Your task to perform on an android device: turn vacation reply on in the gmail app Image 0: 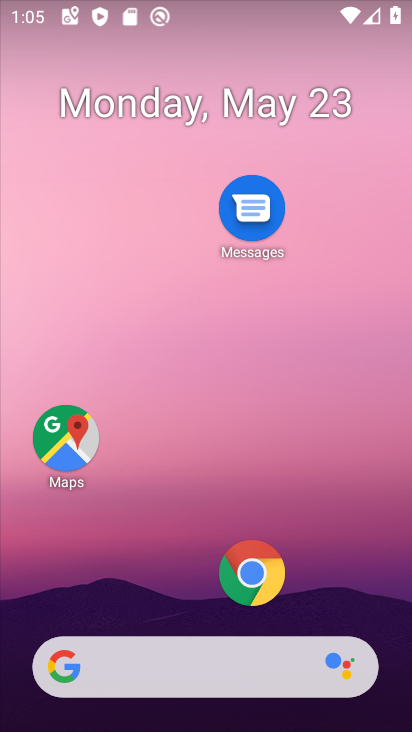
Step 0: drag from (262, 674) to (222, 225)
Your task to perform on an android device: turn vacation reply on in the gmail app Image 1: 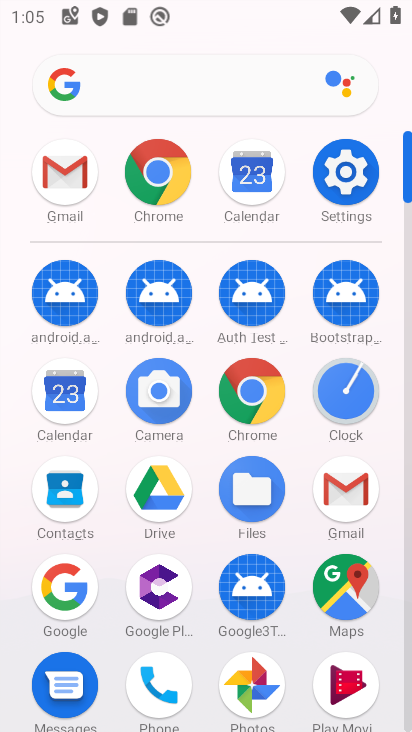
Step 1: click (327, 504)
Your task to perform on an android device: turn vacation reply on in the gmail app Image 2: 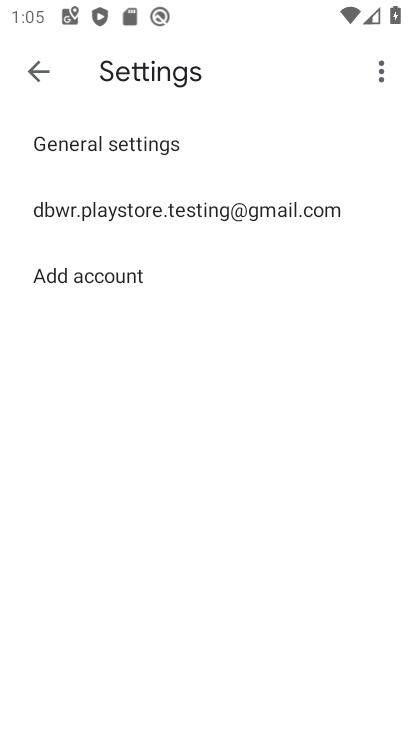
Step 2: click (213, 214)
Your task to perform on an android device: turn vacation reply on in the gmail app Image 3: 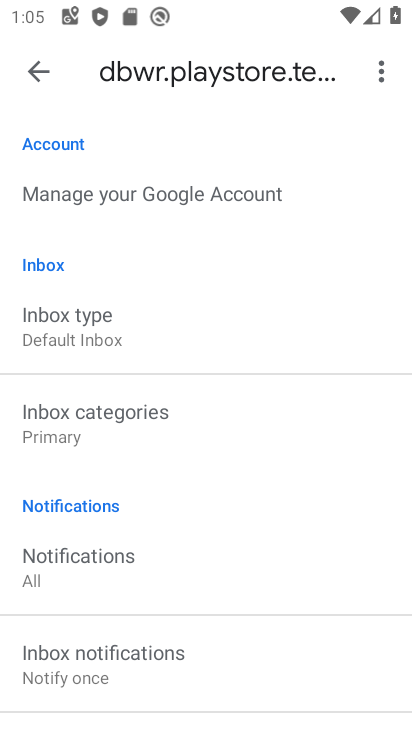
Step 3: drag from (229, 678) to (238, 183)
Your task to perform on an android device: turn vacation reply on in the gmail app Image 4: 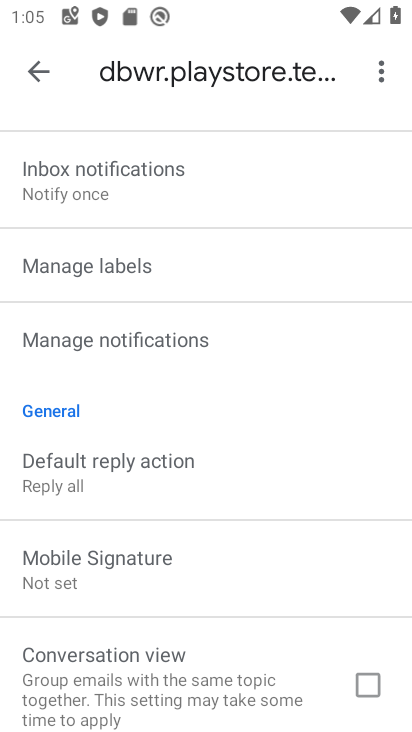
Step 4: drag from (211, 695) to (256, 324)
Your task to perform on an android device: turn vacation reply on in the gmail app Image 5: 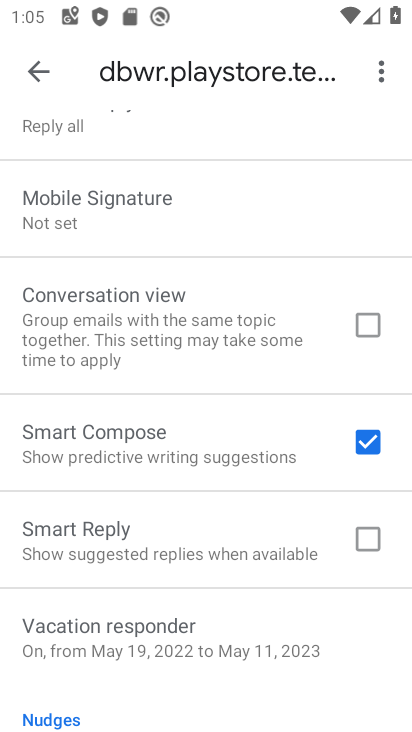
Step 5: click (140, 620)
Your task to perform on an android device: turn vacation reply on in the gmail app Image 6: 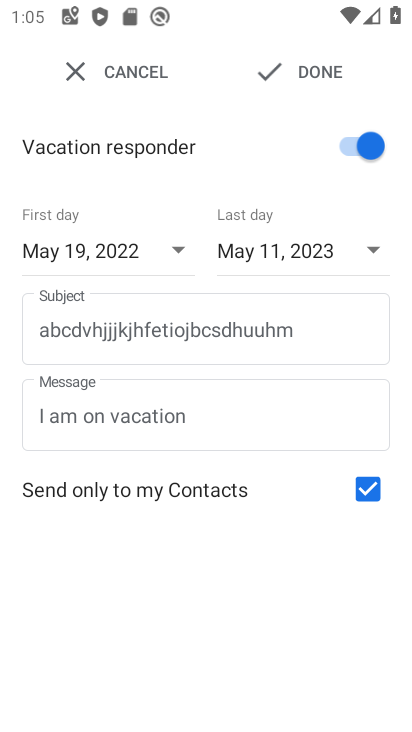
Step 6: click (317, 63)
Your task to perform on an android device: turn vacation reply on in the gmail app Image 7: 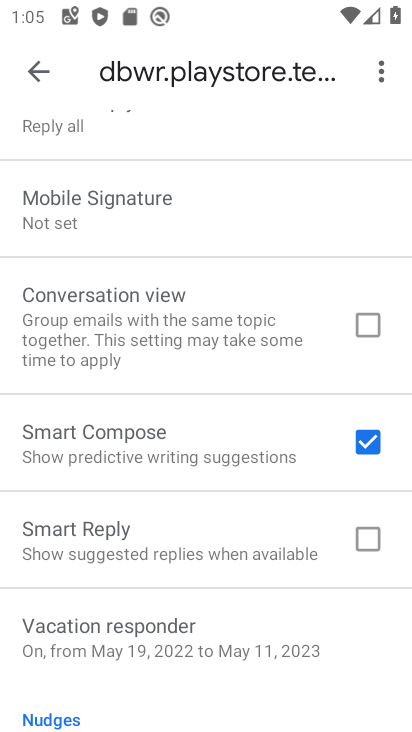
Step 7: task complete